Your task to perform on an android device: open wifi settings Image 0: 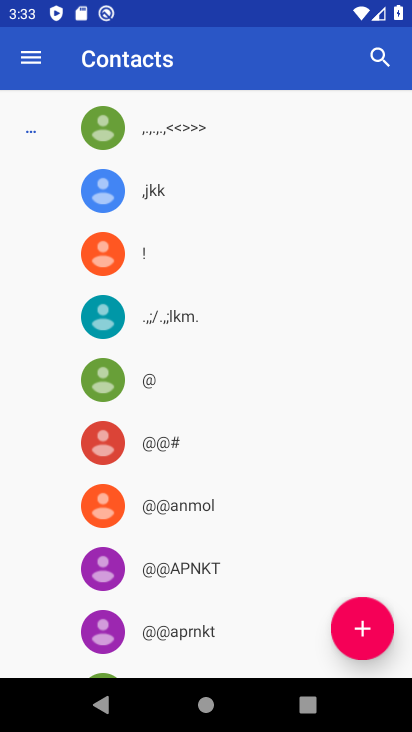
Step 0: press home button
Your task to perform on an android device: open wifi settings Image 1: 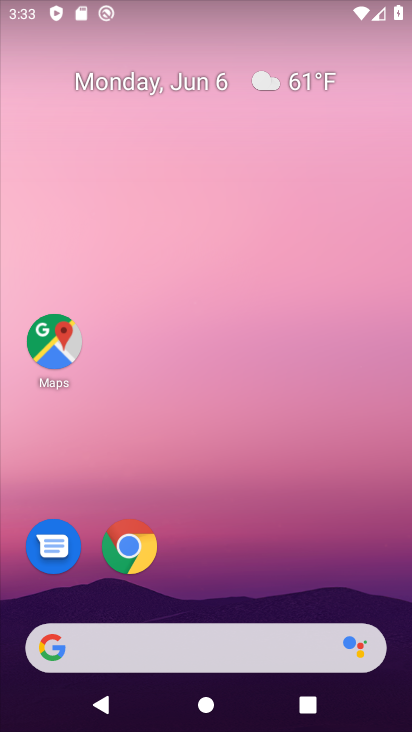
Step 1: drag from (233, 715) to (229, 110)
Your task to perform on an android device: open wifi settings Image 2: 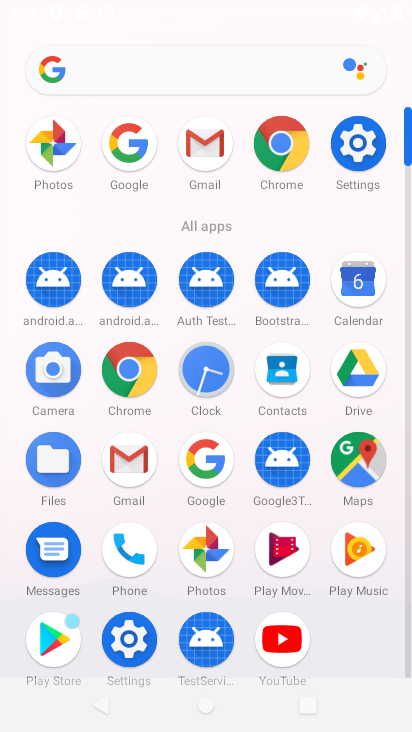
Step 2: click (365, 144)
Your task to perform on an android device: open wifi settings Image 3: 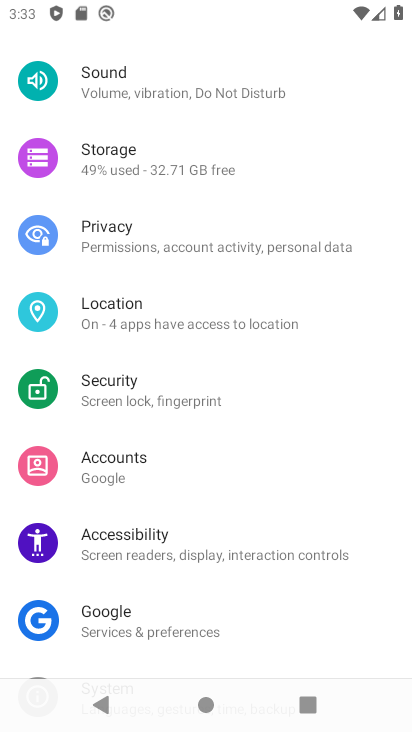
Step 3: drag from (233, 135) to (241, 529)
Your task to perform on an android device: open wifi settings Image 4: 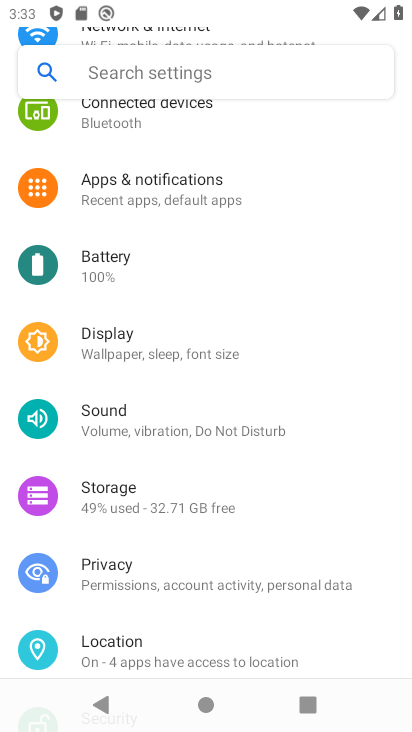
Step 4: drag from (228, 152) to (226, 501)
Your task to perform on an android device: open wifi settings Image 5: 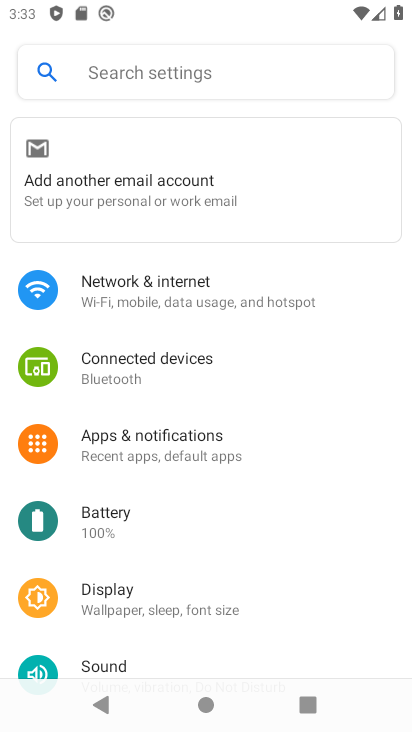
Step 5: click (123, 298)
Your task to perform on an android device: open wifi settings Image 6: 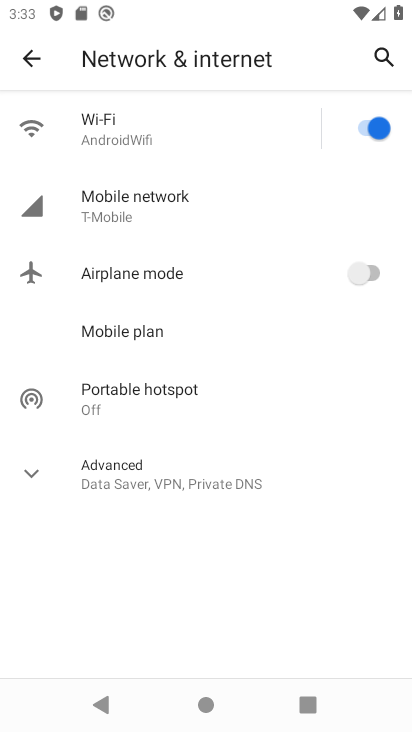
Step 6: click (96, 132)
Your task to perform on an android device: open wifi settings Image 7: 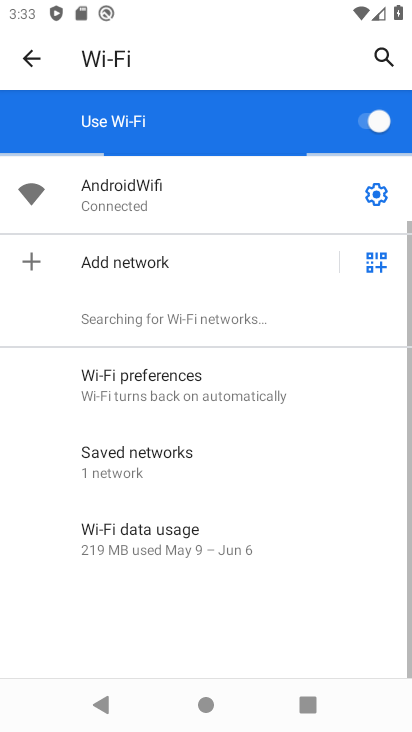
Step 7: task complete